Your task to perform on an android device: turn on location history Image 0: 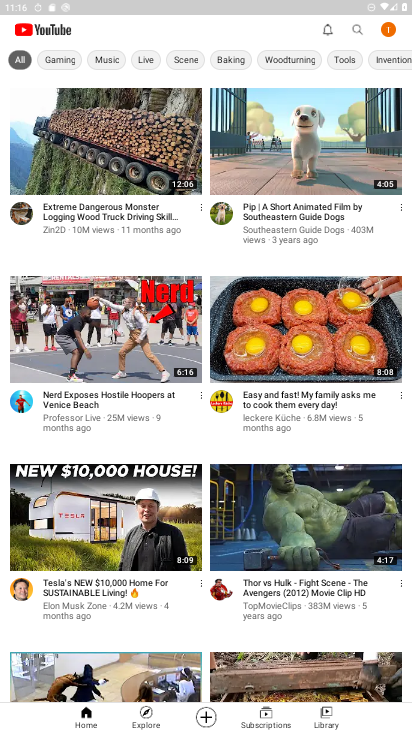
Step 0: press home button
Your task to perform on an android device: turn on location history Image 1: 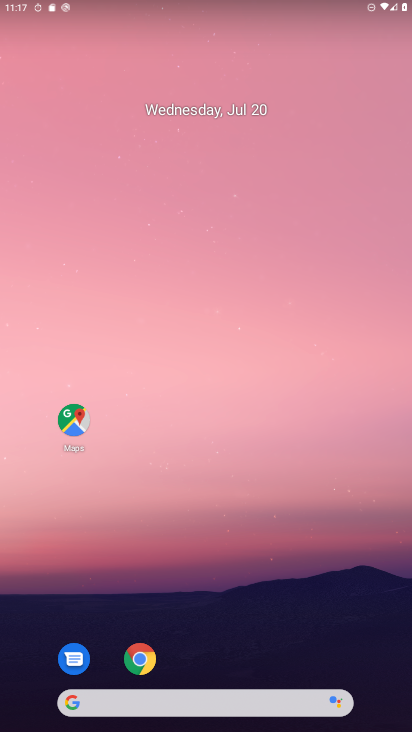
Step 1: drag from (252, 635) to (260, 161)
Your task to perform on an android device: turn on location history Image 2: 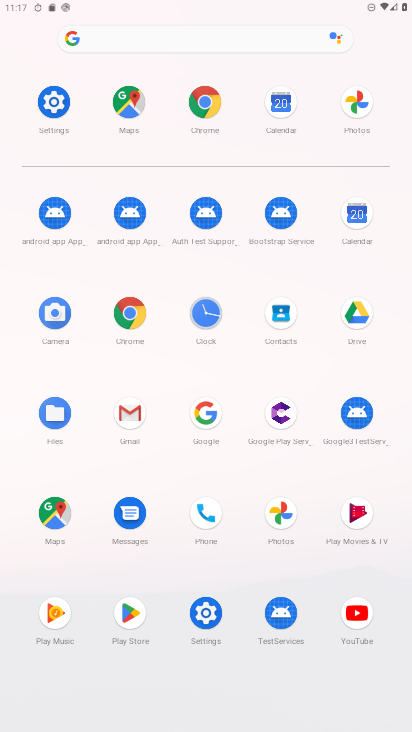
Step 2: click (65, 100)
Your task to perform on an android device: turn on location history Image 3: 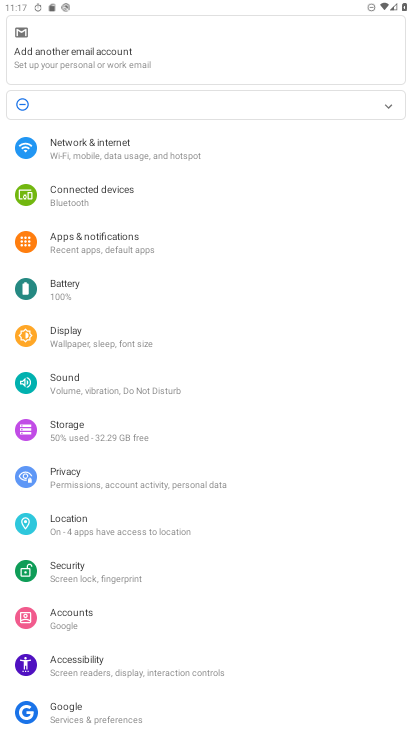
Step 3: click (65, 521)
Your task to perform on an android device: turn on location history Image 4: 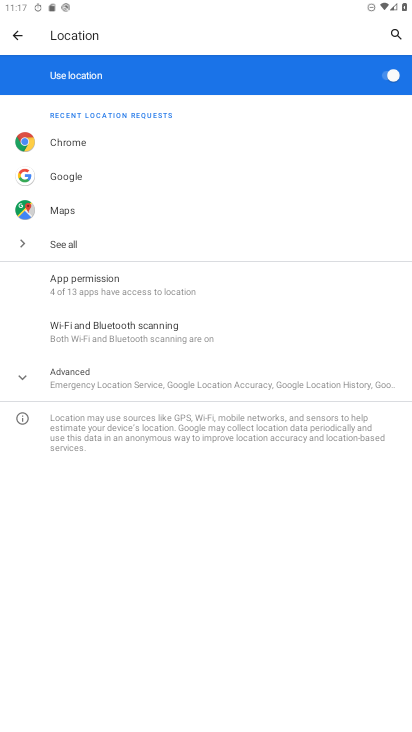
Step 4: click (105, 375)
Your task to perform on an android device: turn on location history Image 5: 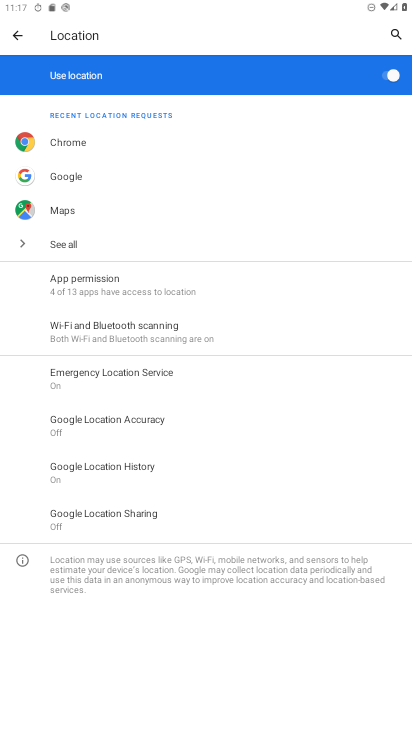
Step 5: click (114, 471)
Your task to perform on an android device: turn on location history Image 6: 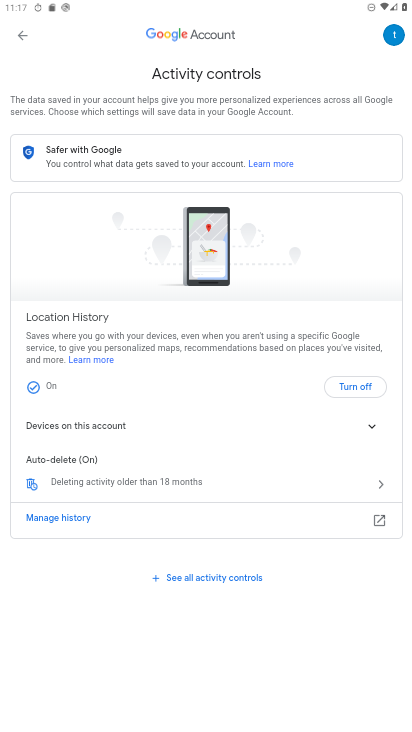
Step 6: task complete